Your task to perform on an android device: open chrome privacy settings Image 0: 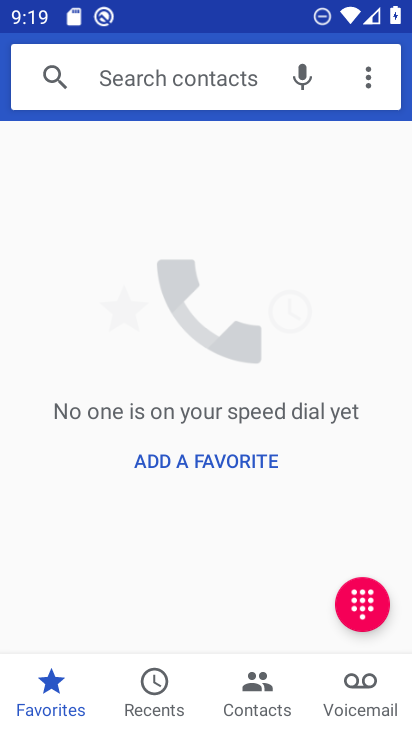
Step 0: press home button
Your task to perform on an android device: open chrome privacy settings Image 1: 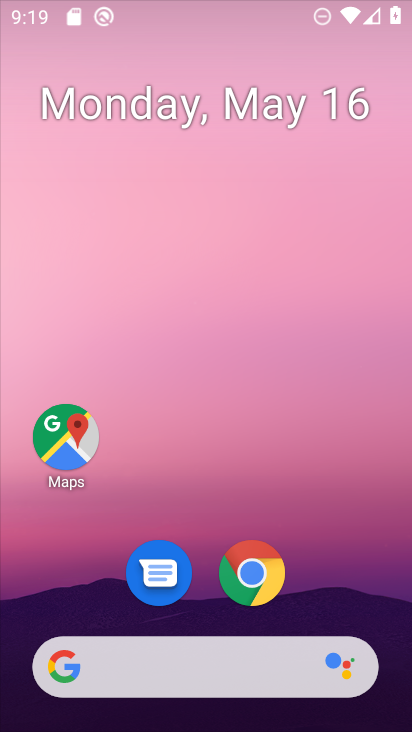
Step 1: drag from (357, 541) to (412, 174)
Your task to perform on an android device: open chrome privacy settings Image 2: 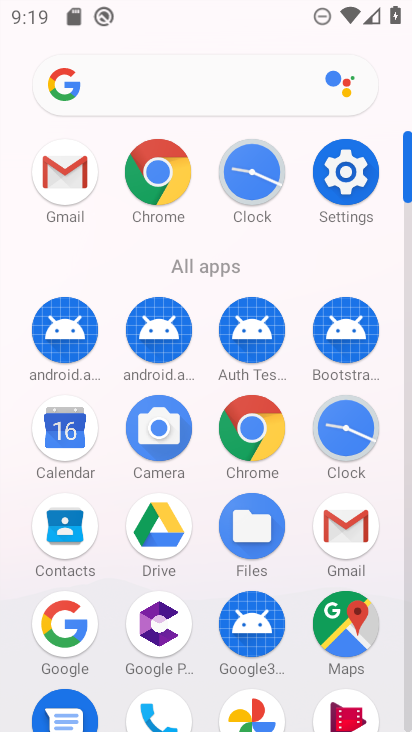
Step 2: click (241, 429)
Your task to perform on an android device: open chrome privacy settings Image 3: 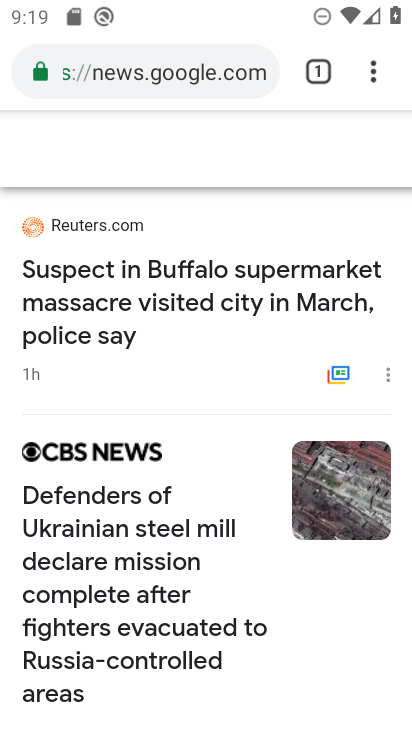
Step 3: drag from (384, 72) to (161, 562)
Your task to perform on an android device: open chrome privacy settings Image 4: 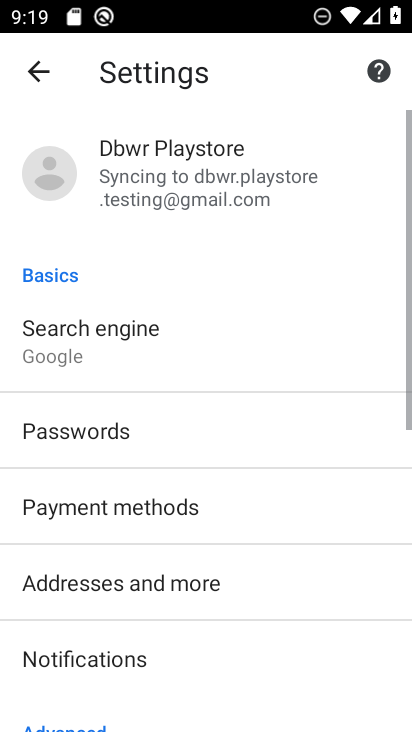
Step 4: drag from (206, 616) to (304, 108)
Your task to perform on an android device: open chrome privacy settings Image 5: 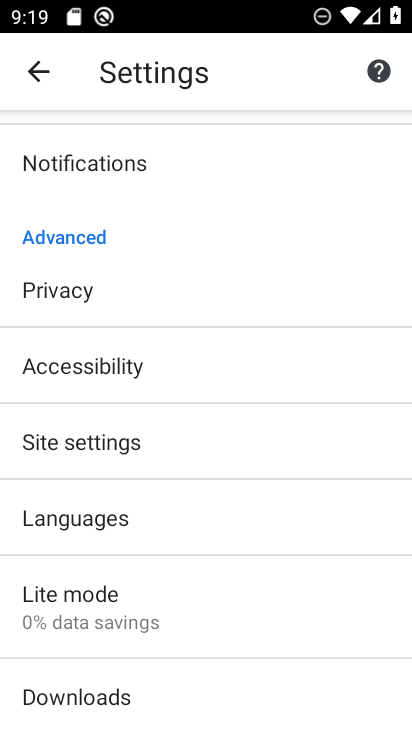
Step 5: click (137, 309)
Your task to perform on an android device: open chrome privacy settings Image 6: 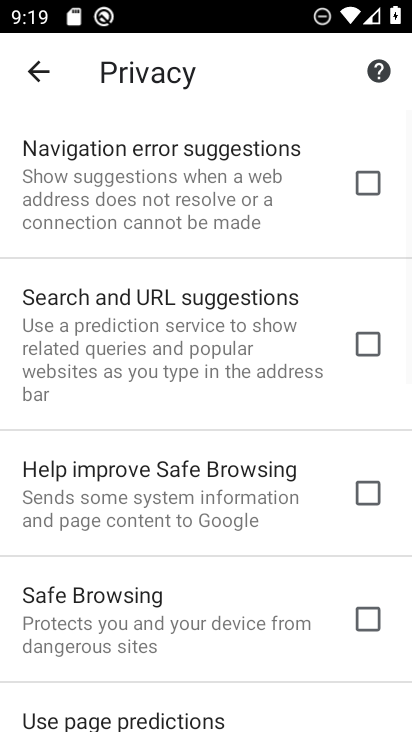
Step 6: task complete